Your task to perform on an android device: Open privacy settings Image 0: 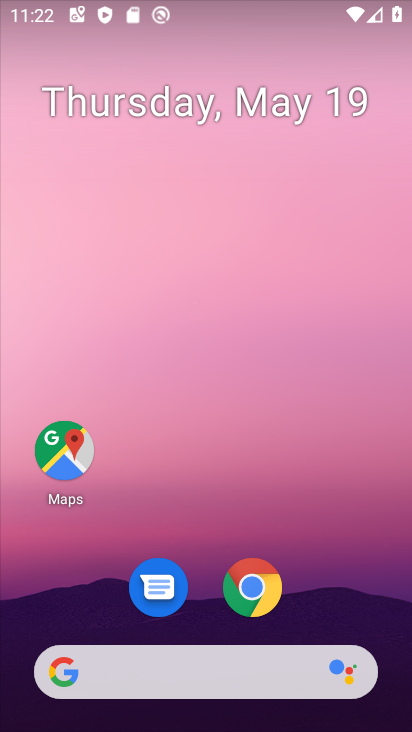
Step 0: drag from (245, 638) to (194, 103)
Your task to perform on an android device: Open privacy settings Image 1: 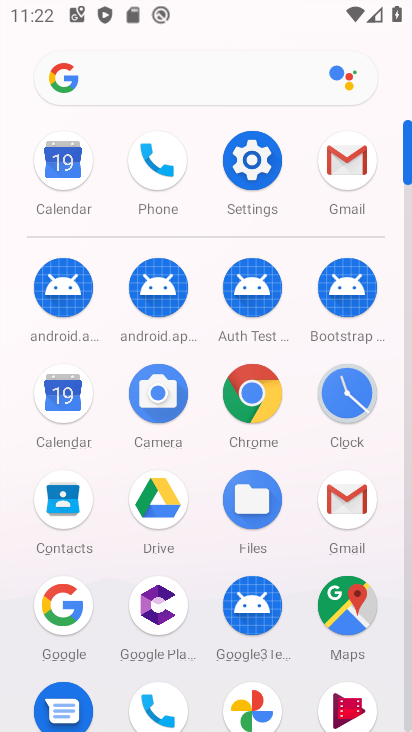
Step 1: click (256, 169)
Your task to perform on an android device: Open privacy settings Image 2: 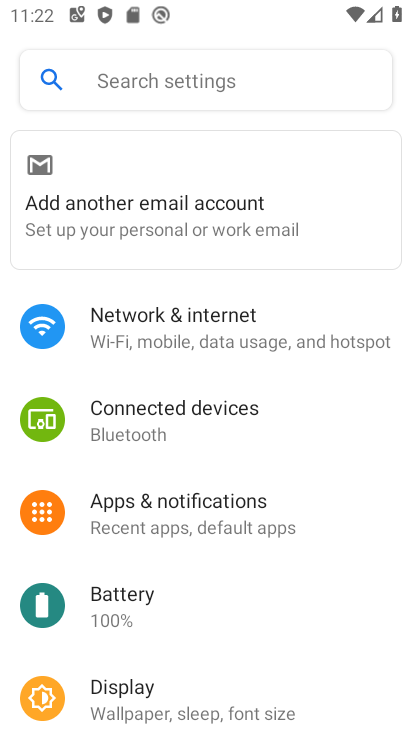
Step 2: drag from (189, 625) to (149, 65)
Your task to perform on an android device: Open privacy settings Image 3: 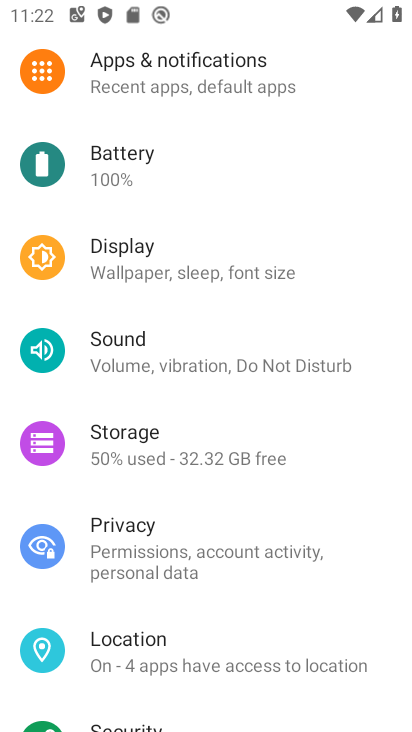
Step 3: click (142, 550)
Your task to perform on an android device: Open privacy settings Image 4: 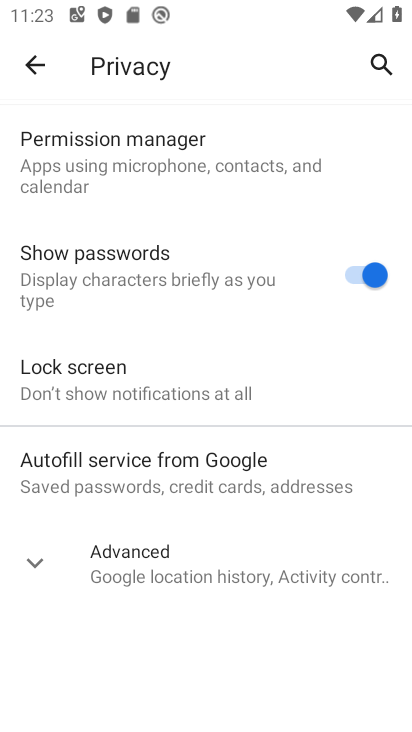
Step 4: task complete